Your task to perform on an android device: Check the news Image 0: 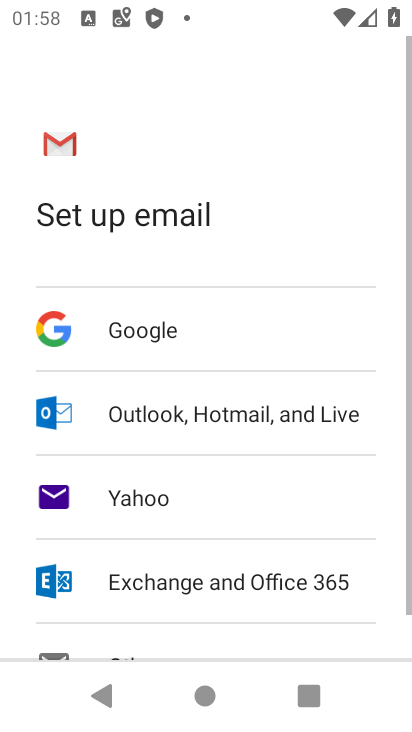
Step 0: press home button
Your task to perform on an android device: Check the news Image 1: 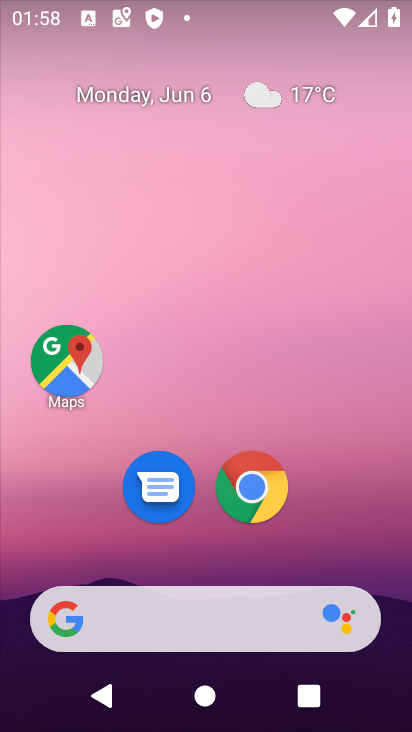
Step 1: task complete